Your task to perform on an android device: turn off sleep mode Image 0: 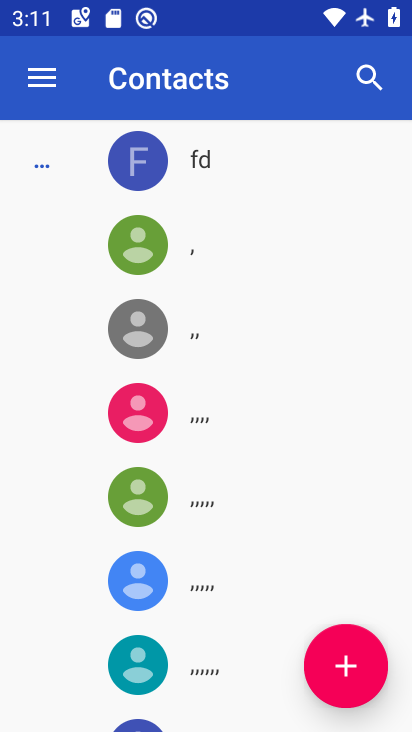
Step 0: press home button
Your task to perform on an android device: turn off sleep mode Image 1: 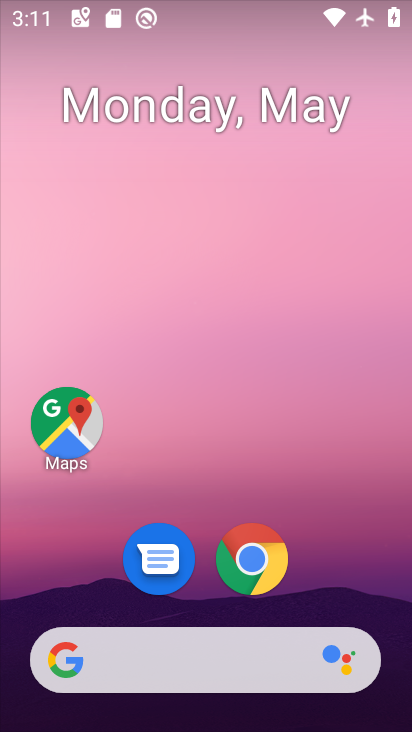
Step 1: drag from (295, 592) to (273, 165)
Your task to perform on an android device: turn off sleep mode Image 2: 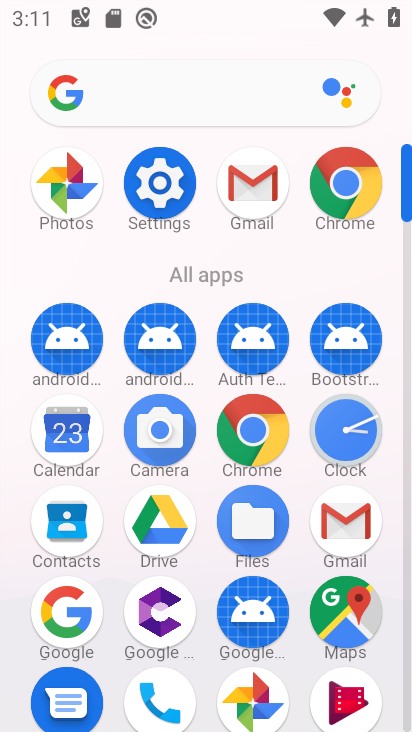
Step 2: click (148, 195)
Your task to perform on an android device: turn off sleep mode Image 3: 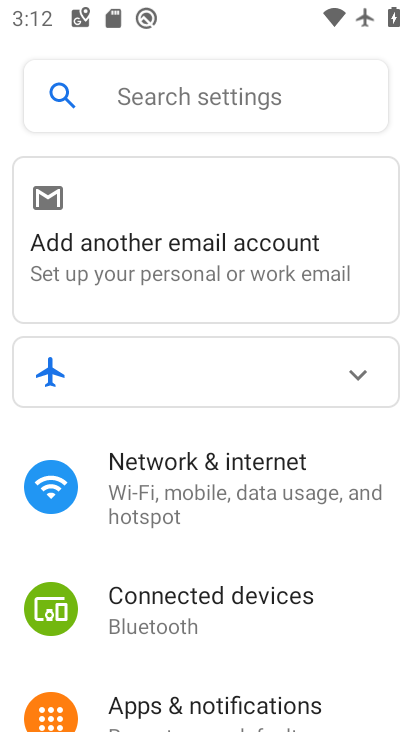
Step 3: task complete